Your task to perform on an android device: Open ESPN.com Image 0: 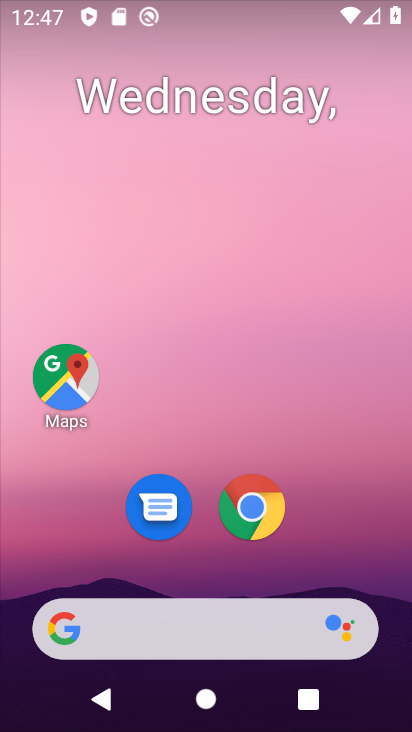
Step 0: click (252, 519)
Your task to perform on an android device: Open ESPN.com Image 1: 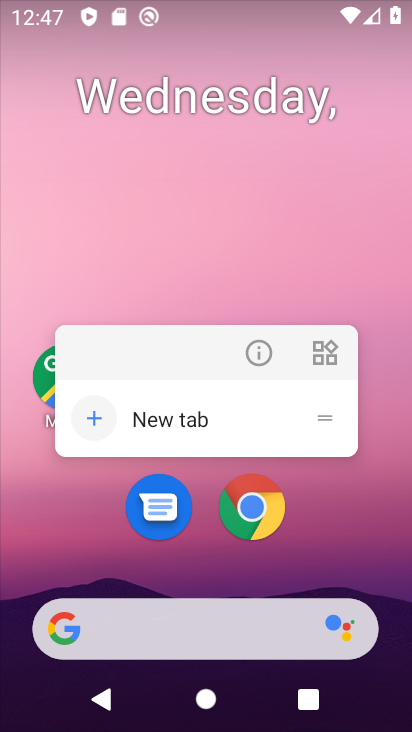
Step 1: click (252, 519)
Your task to perform on an android device: Open ESPN.com Image 2: 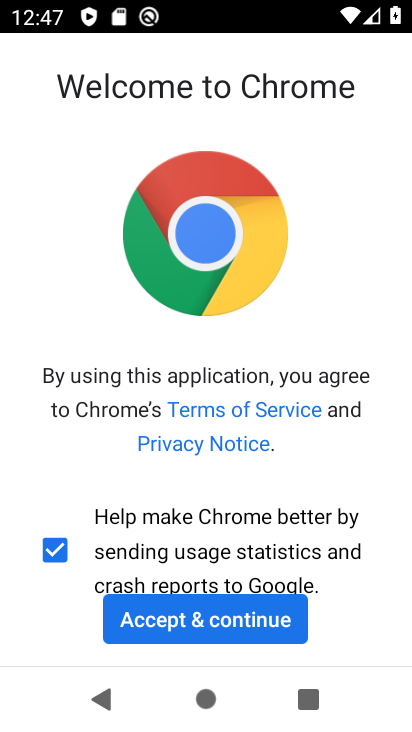
Step 2: click (203, 613)
Your task to perform on an android device: Open ESPN.com Image 3: 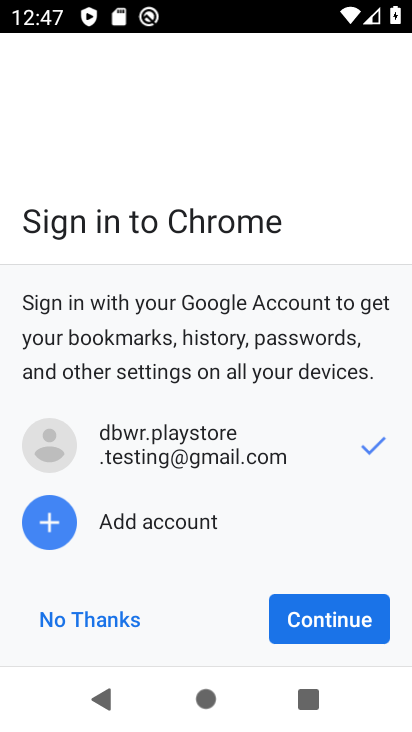
Step 3: click (300, 631)
Your task to perform on an android device: Open ESPN.com Image 4: 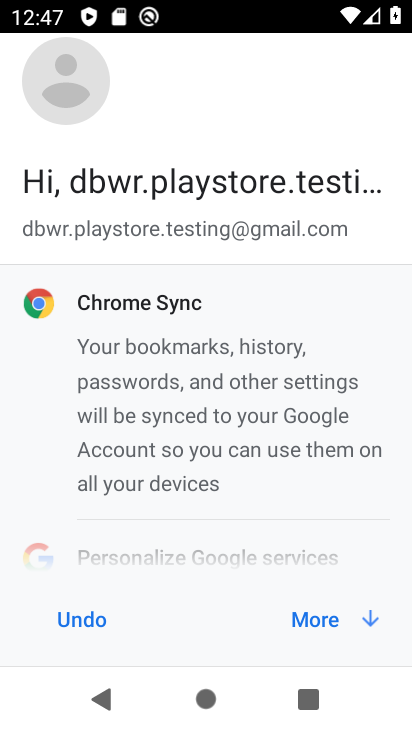
Step 4: click (317, 612)
Your task to perform on an android device: Open ESPN.com Image 5: 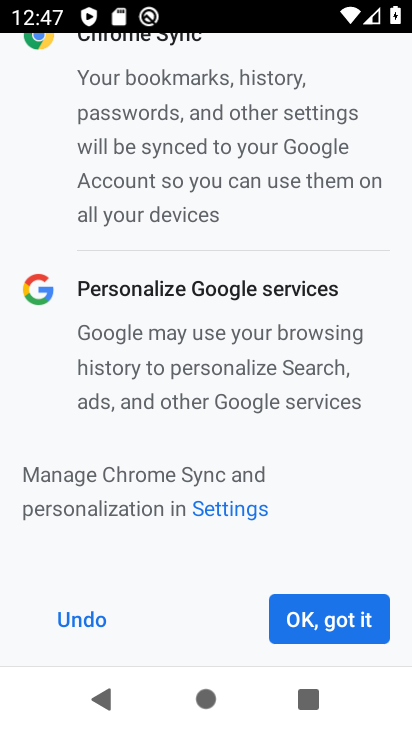
Step 5: click (328, 626)
Your task to perform on an android device: Open ESPN.com Image 6: 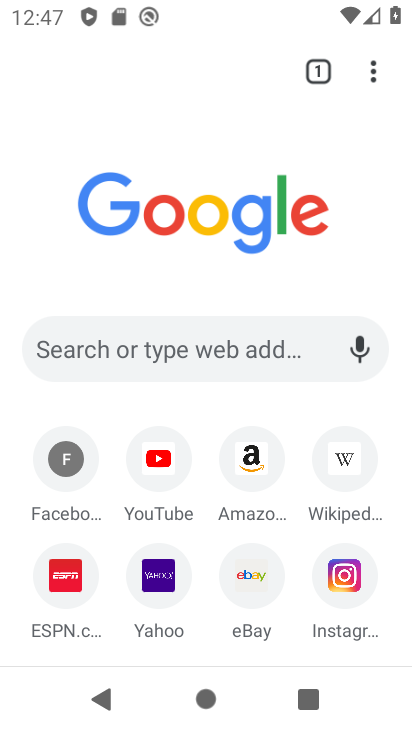
Step 6: click (64, 580)
Your task to perform on an android device: Open ESPN.com Image 7: 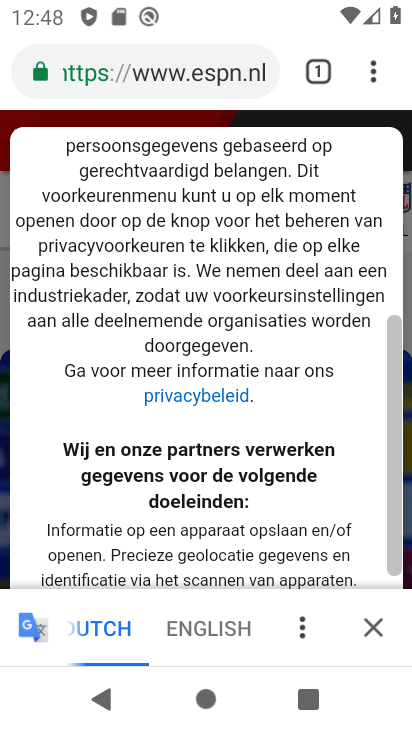
Step 7: click (207, 626)
Your task to perform on an android device: Open ESPN.com Image 8: 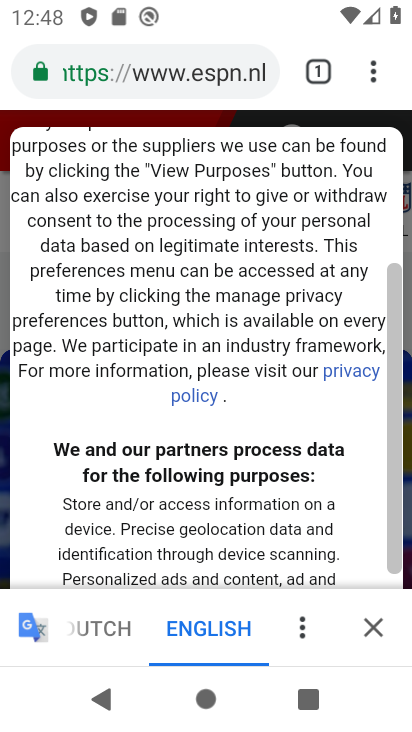
Step 8: drag from (163, 543) to (292, 153)
Your task to perform on an android device: Open ESPN.com Image 9: 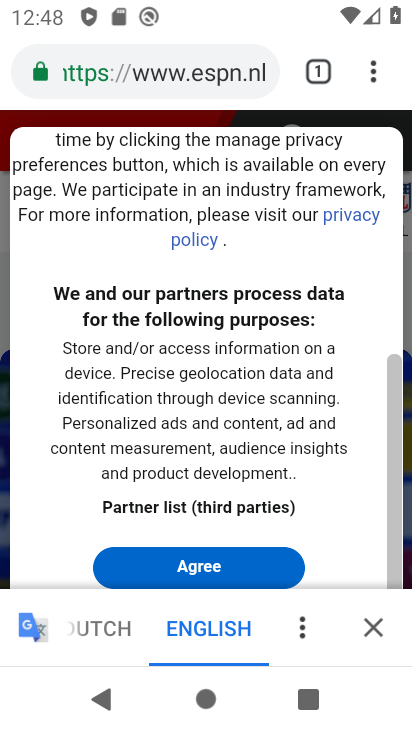
Step 9: click (194, 570)
Your task to perform on an android device: Open ESPN.com Image 10: 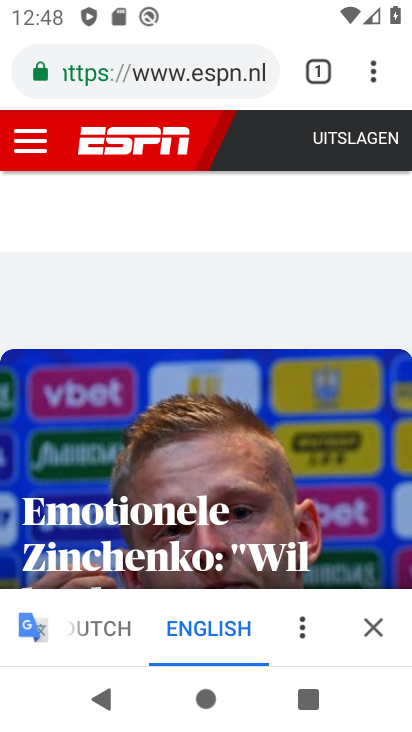
Step 10: task complete